Your task to perform on an android device: move a message to another label in the gmail app Image 0: 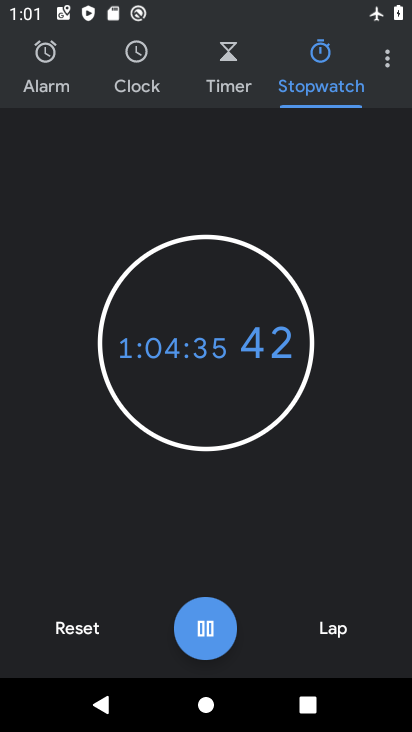
Step 0: press home button
Your task to perform on an android device: move a message to another label in the gmail app Image 1: 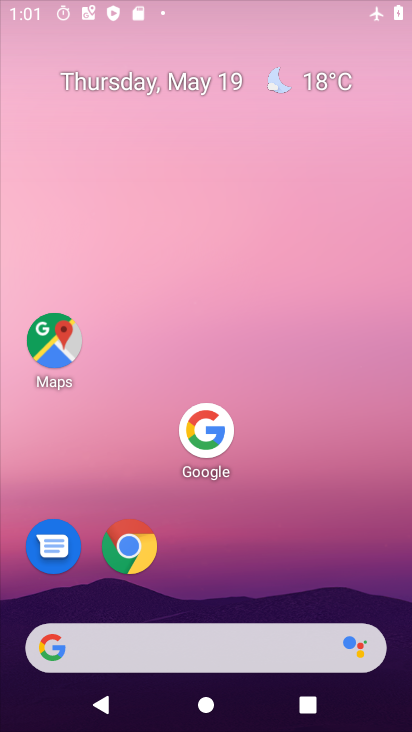
Step 1: drag from (238, 473) to (206, 13)
Your task to perform on an android device: move a message to another label in the gmail app Image 2: 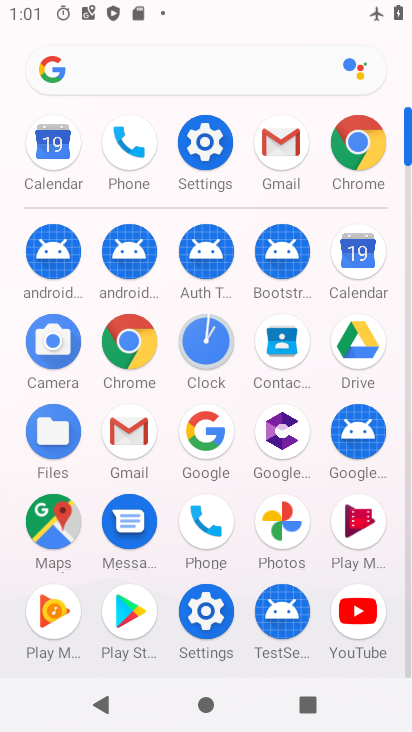
Step 2: click (287, 138)
Your task to perform on an android device: move a message to another label in the gmail app Image 3: 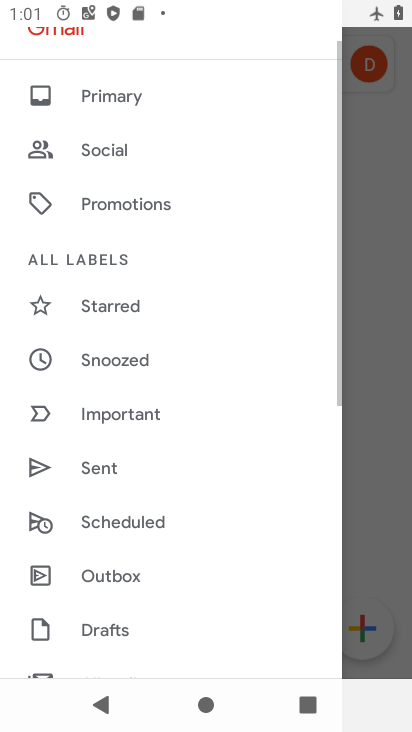
Step 3: drag from (156, 558) to (179, 219)
Your task to perform on an android device: move a message to another label in the gmail app Image 4: 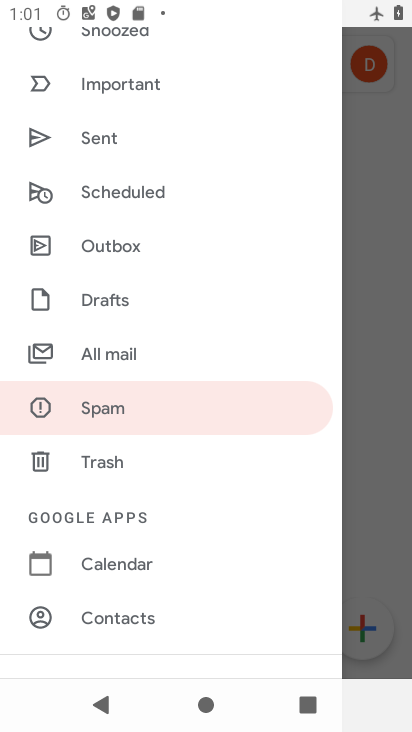
Step 4: click (146, 348)
Your task to perform on an android device: move a message to another label in the gmail app Image 5: 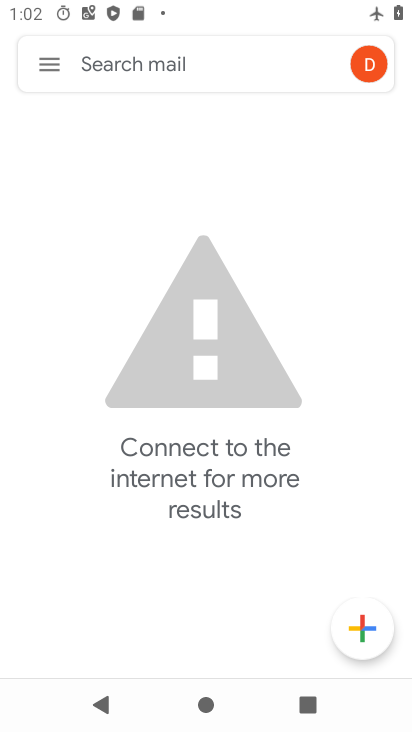
Step 5: task complete